Your task to perform on an android device: change the upload size in google photos Image 0: 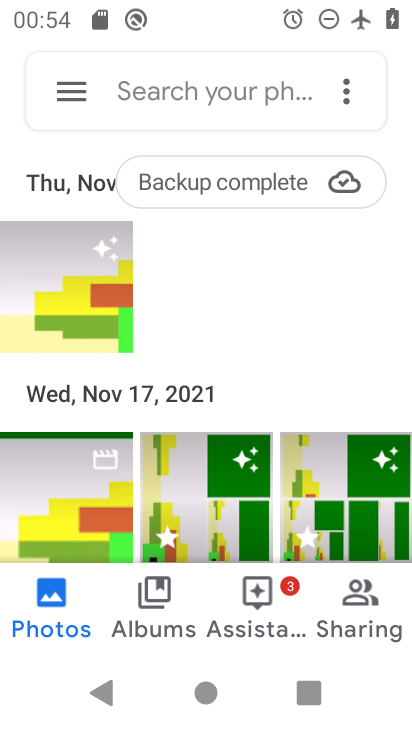
Step 0: press home button
Your task to perform on an android device: change the upload size in google photos Image 1: 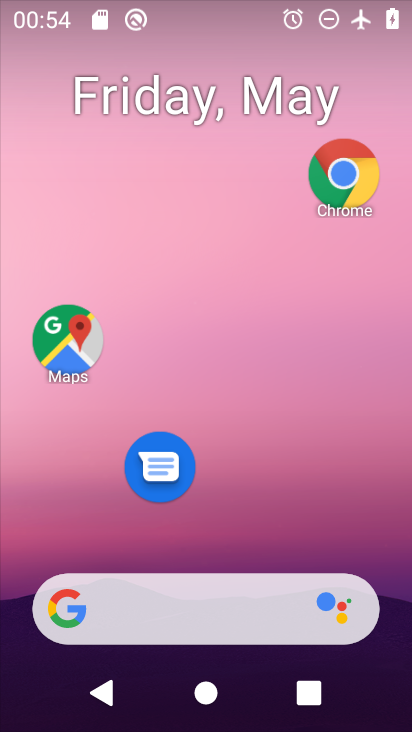
Step 1: click (284, 473)
Your task to perform on an android device: change the upload size in google photos Image 2: 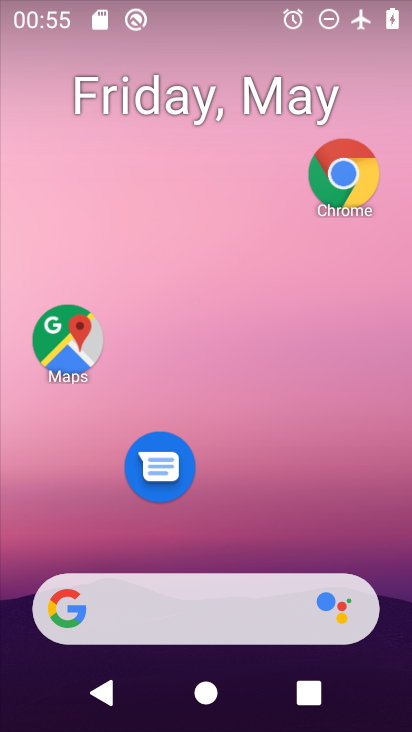
Step 2: click (230, 565)
Your task to perform on an android device: change the upload size in google photos Image 3: 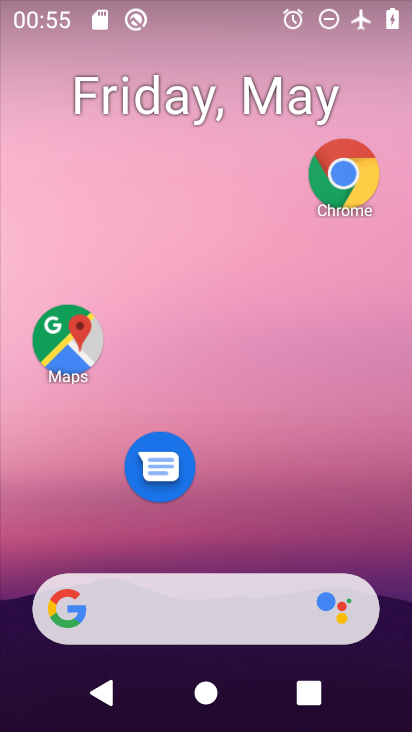
Step 3: drag from (212, 593) to (249, 191)
Your task to perform on an android device: change the upload size in google photos Image 4: 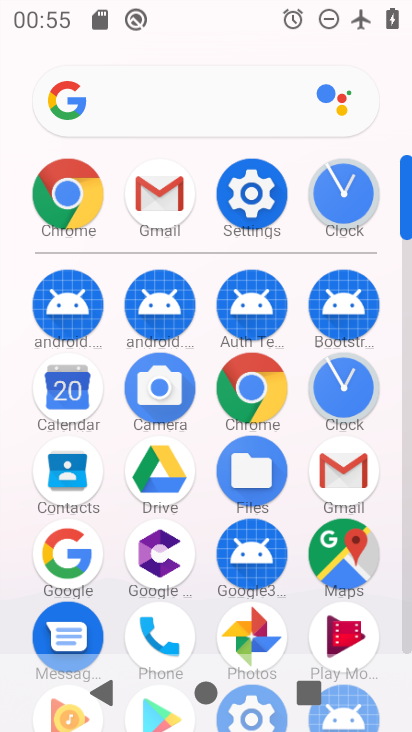
Step 4: click (239, 618)
Your task to perform on an android device: change the upload size in google photos Image 5: 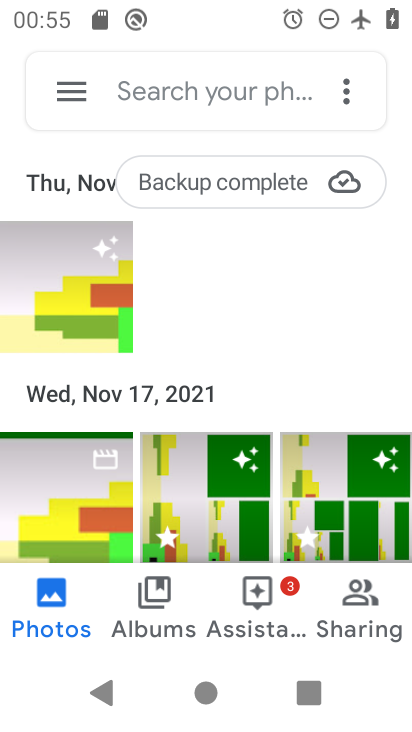
Step 5: click (60, 82)
Your task to perform on an android device: change the upload size in google photos Image 6: 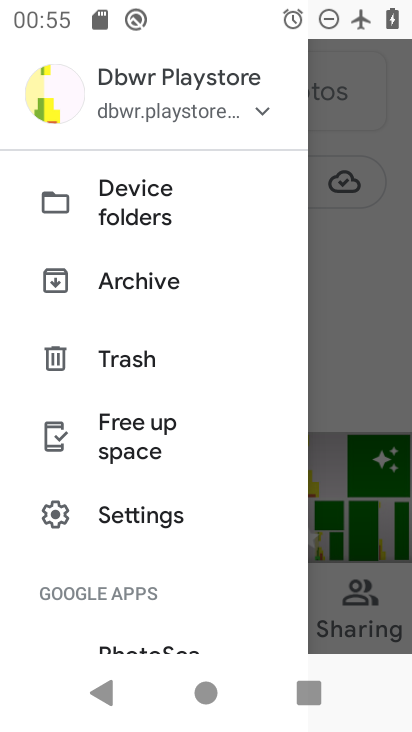
Step 6: click (132, 511)
Your task to perform on an android device: change the upload size in google photos Image 7: 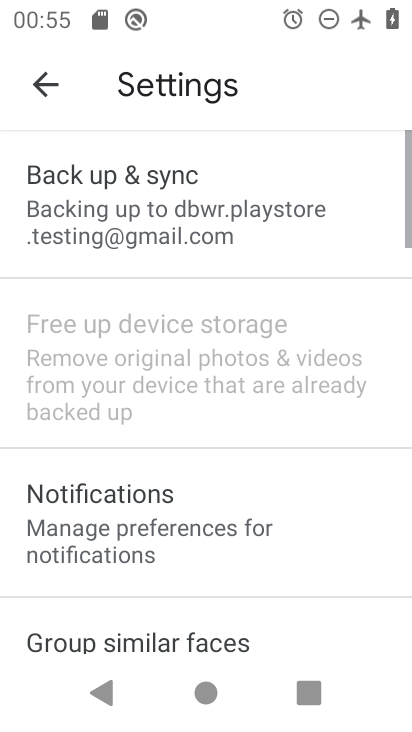
Step 7: click (130, 213)
Your task to perform on an android device: change the upload size in google photos Image 8: 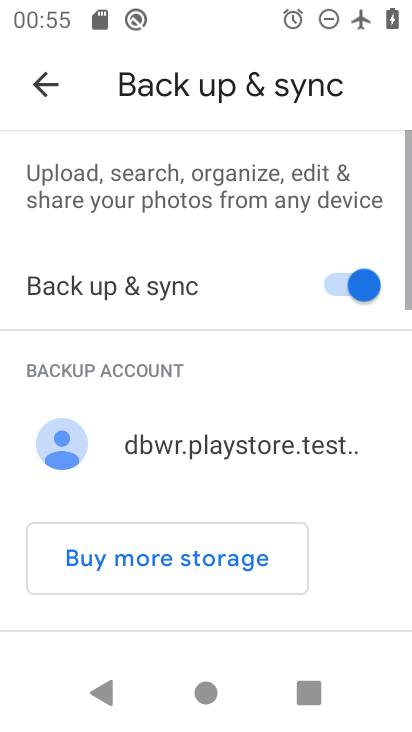
Step 8: drag from (184, 484) to (226, 216)
Your task to perform on an android device: change the upload size in google photos Image 9: 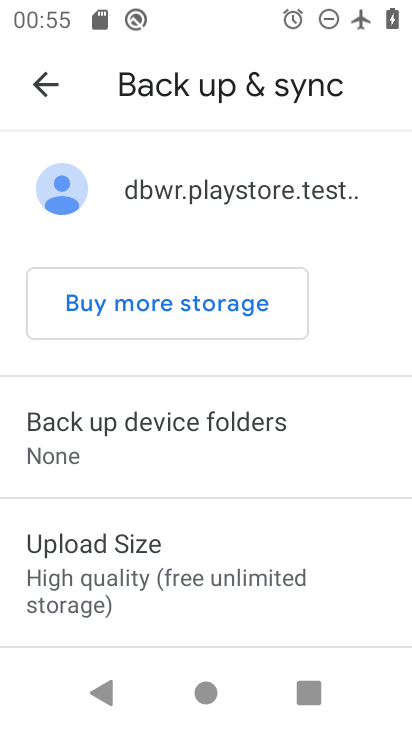
Step 9: click (152, 578)
Your task to perform on an android device: change the upload size in google photos Image 10: 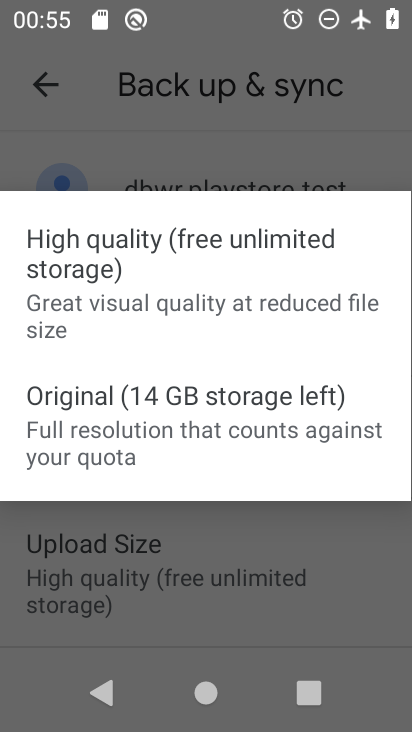
Step 10: click (150, 393)
Your task to perform on an android device: change the upload size in google photos Image 11: 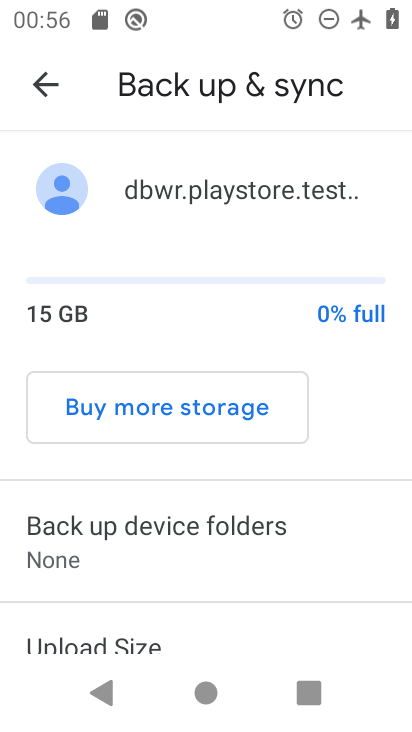
Step 11: task complete